Your task to perform on an android device: Open wifi settings Image 0: 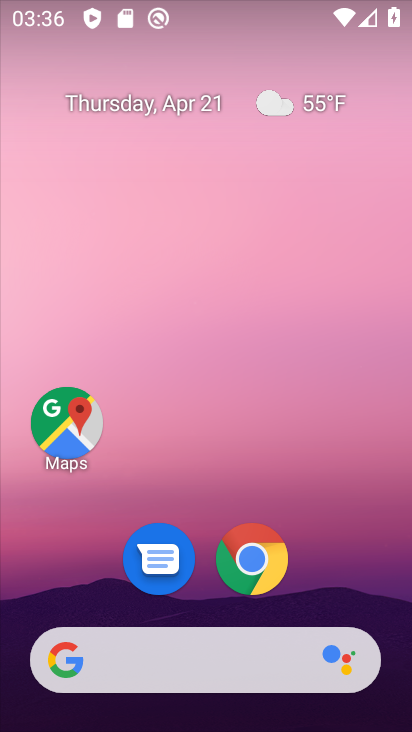
Step 0: drag from (290, 76) to (312, 515)
Your task to perform on an android device: Open wifi settings Image 1: 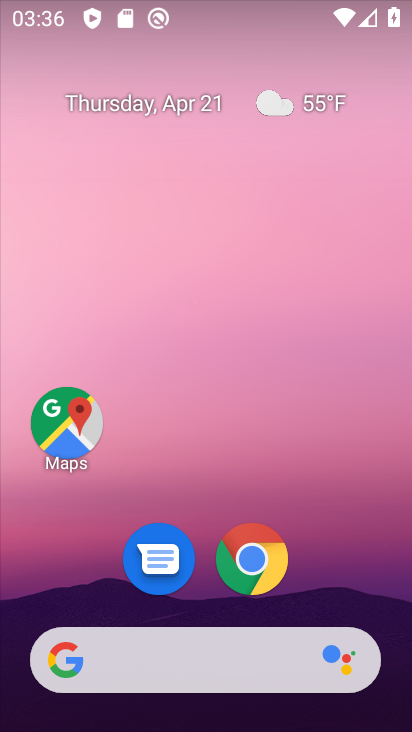
Step 1: drag from (255, 7) to (251, 530)
Your task to perform on an android device: Open wifi settings Image 2: 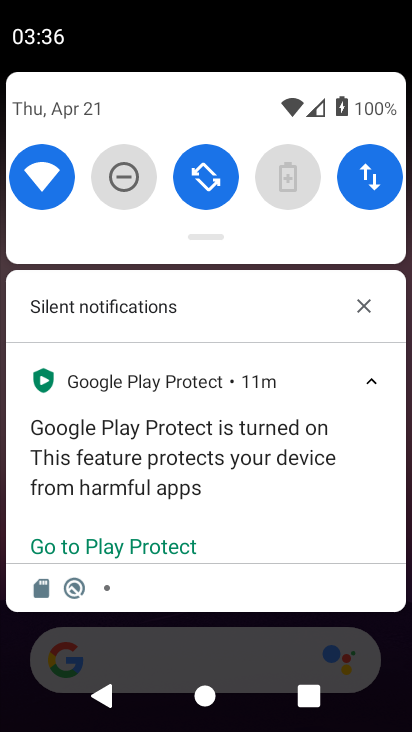
Step 2: click (40, 179)
Your task to perform on an android device: Open wifi settings Image 3: 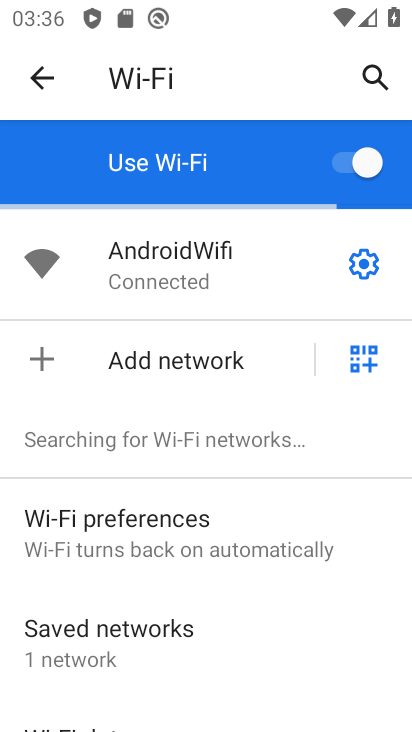
Step 3: task complete